Your task to perform on an android device: open device folders in google photos Image 0: 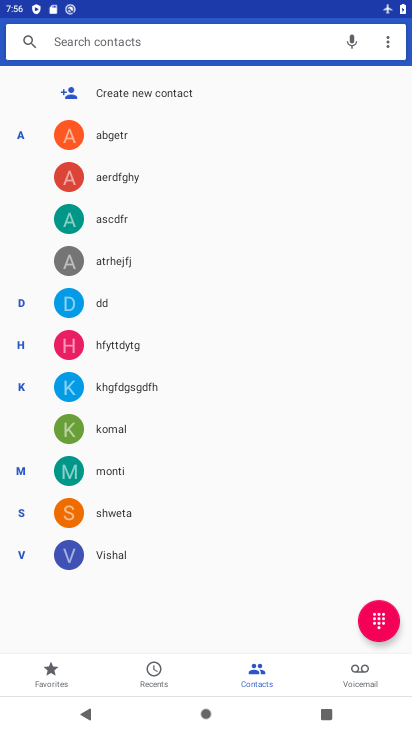
Step 0: press home button
Your task to perform on an android device: open device folders in google photos Image 1: 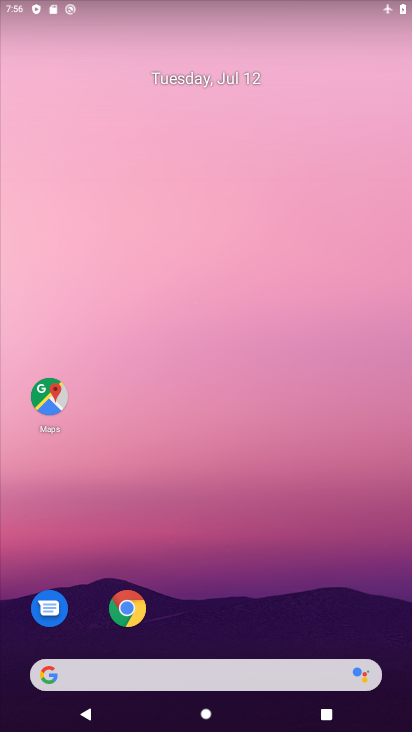
Step 1: drag from (211, 646) to (214, 84)
Your task to perform on an android device: open device folders in google photos Image 2: 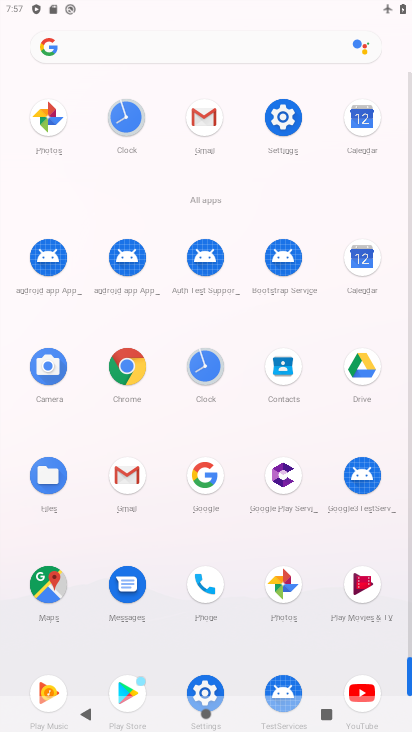
Step 2: click (275, 589)
Your task to perform on an android device: open device folders in google photos Image 3: 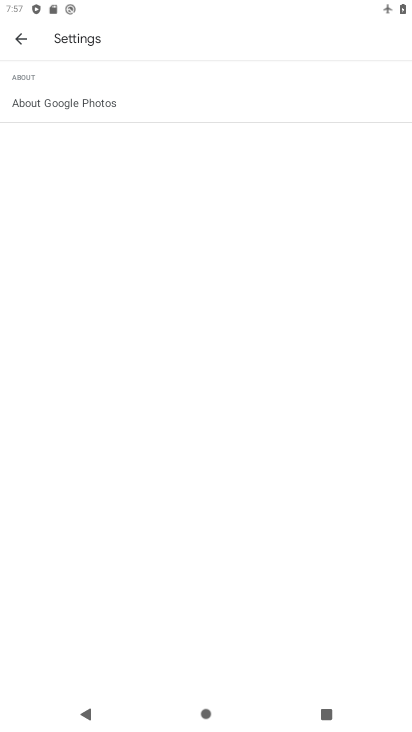
Step 3: click (15, 41)
Your task to perform on an android device: open device folders in google photos Image 4: 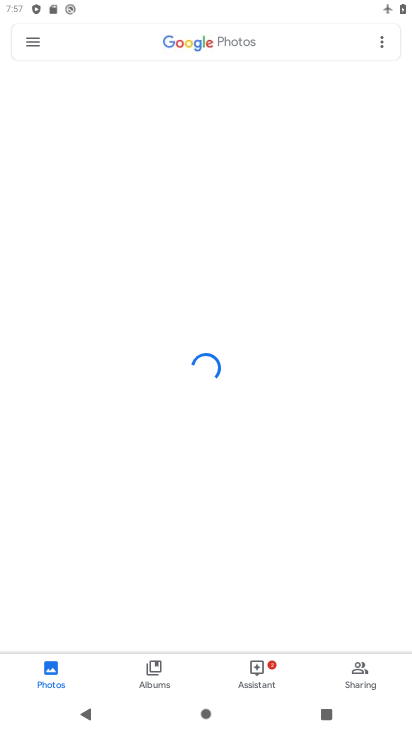
Step 4: click (33, 44)
Your task to perform on an android device: open device folders in google photos Image 5: 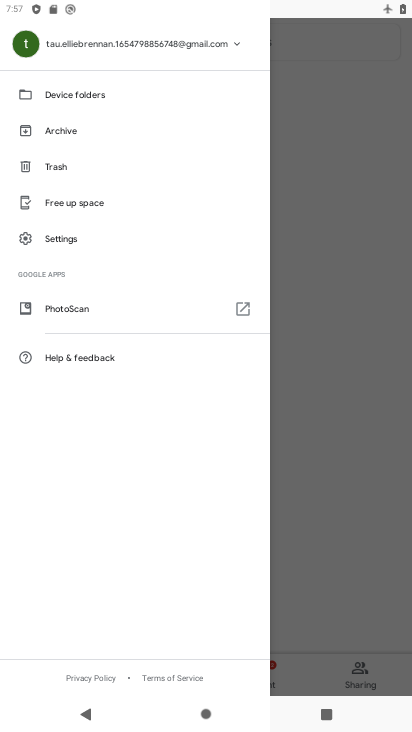
Step 5: click (82, 92)
Your task to perform on an android device: open device folders in google photos Image 6: 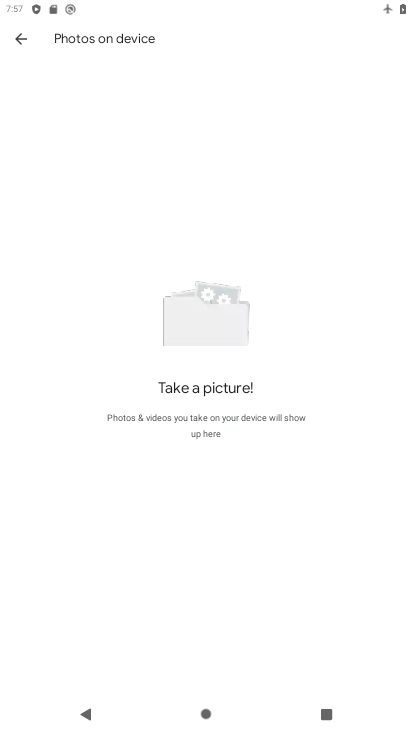
Step 6: task complete